Your task to perform on an android device: delete the emails in spam in the gmail app Image 0: 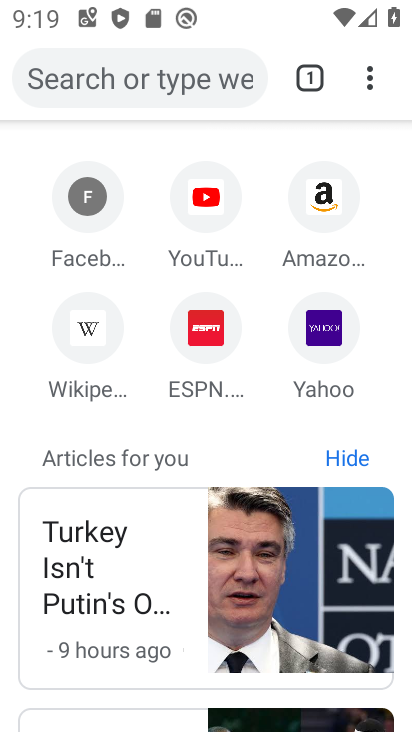
Step 0: press back button
Your task to perform on an android device: delete the emails in spam in the gmail app Image 1: 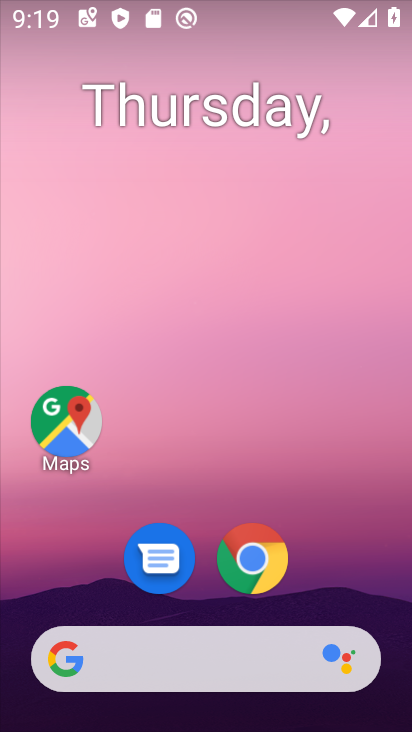
Step 1: drag from (331, 564) to (243, 225)
Your task to perform on an android device: delete the emails in spam in the gmail app Image 2: 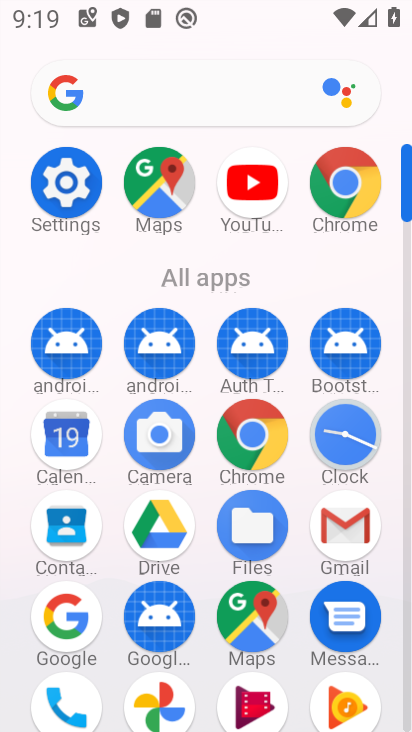
Step 2: click (340, 525)
Your task to perform on an android device: delete the emails in spam in the gmail app Image 3: 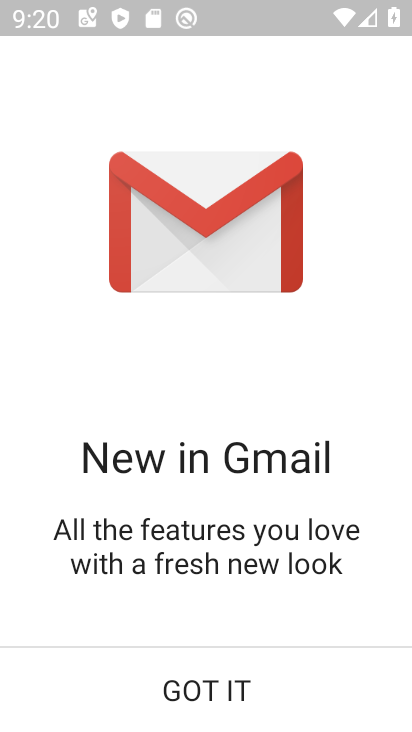
Step 3: click (201, 694)
Your task to perform on an android device: delete the emails in spam in the gmail app Image 4: 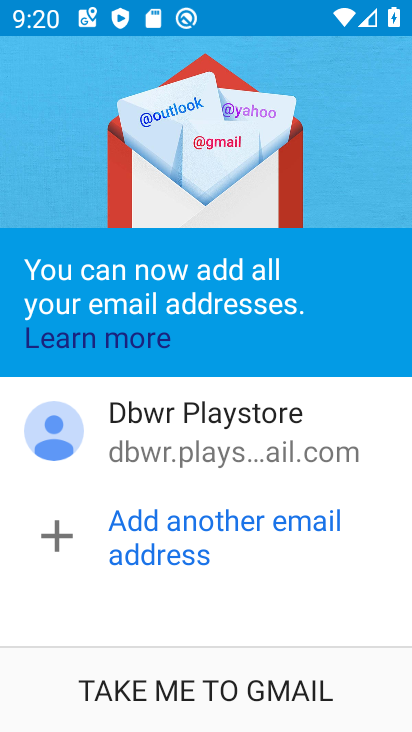
Step 4: click (192, 682)
Your task to perform on an android device: delete the emails in spam in the gmail app Image 5: 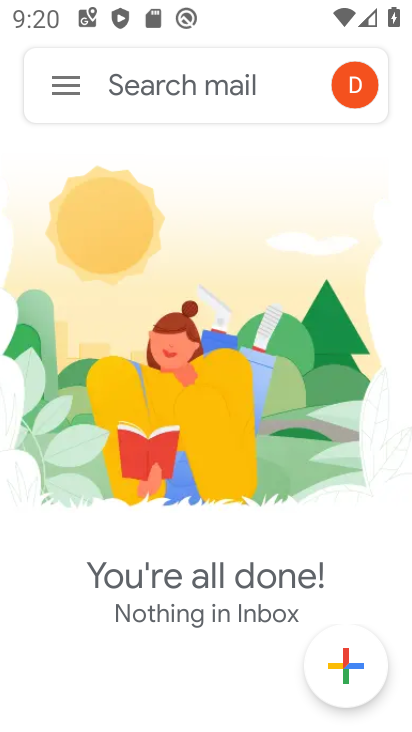
Step 5: click (70, 90)
Your task to perform on an android device: delete the emails in spam in the gmail app Image 6: 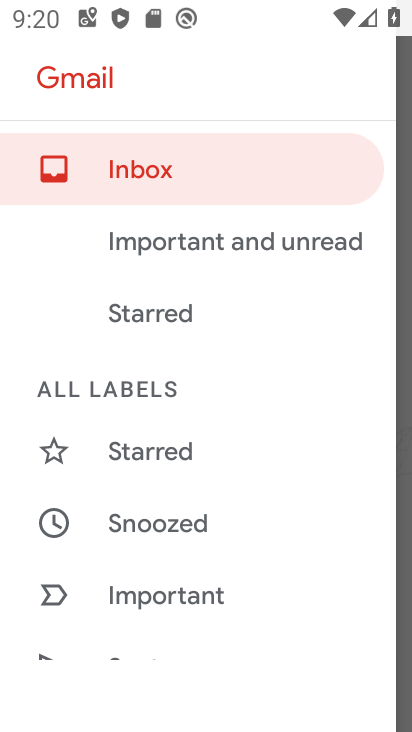
Step 6: drag from (162, 553) to (220, 444)
Your task to perform on an android device: delete the emails in spam in the gmail app Image 7: 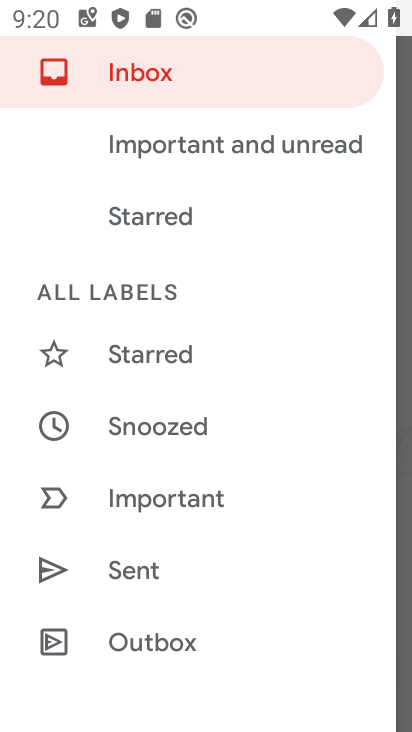
Step 7: drag from (176, 561) to (227, 446)
Your task to perform on an android device: delete the emails in spam in the gmail app Image 8: 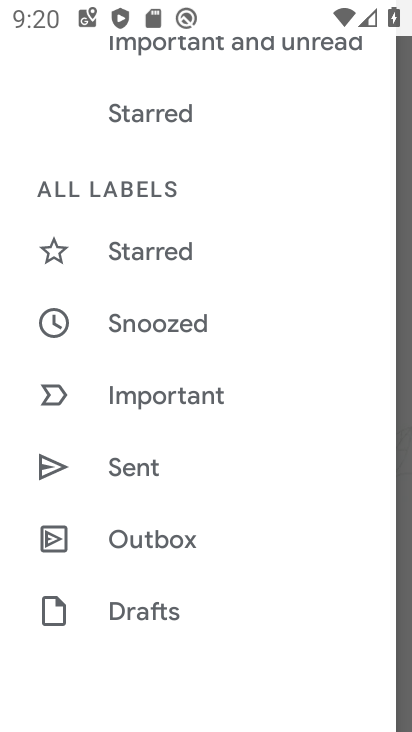
Step 8: drag from (148, 569) to (223, 462)
Your task to perform on an android device: delete the emails in spam in the gmail app Image 9: 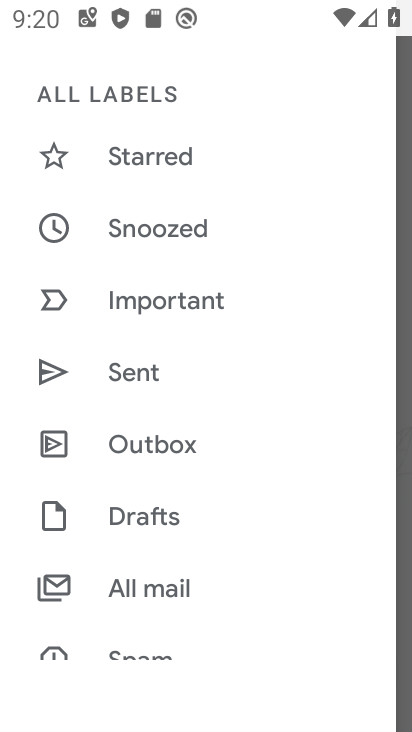
Step 9: drag from (160, 547) to (226, 443)
Your task to perform on an android device: delete the emails in spam in the gmail app Image 10: 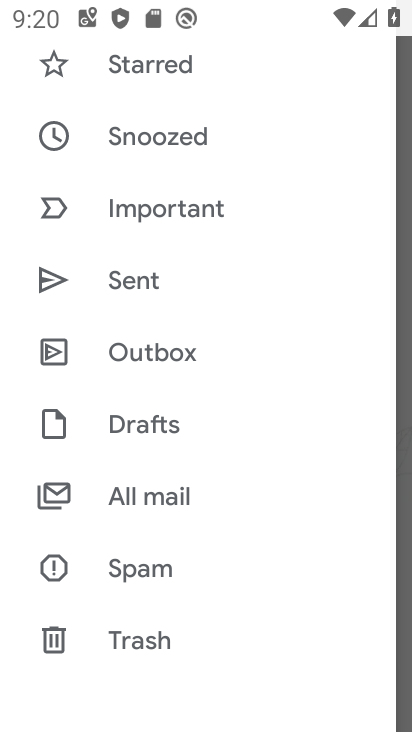
Step 10: click (146, 567)
Your task to perform on an android device: delete the emails in spam in the gmail app Image 11: 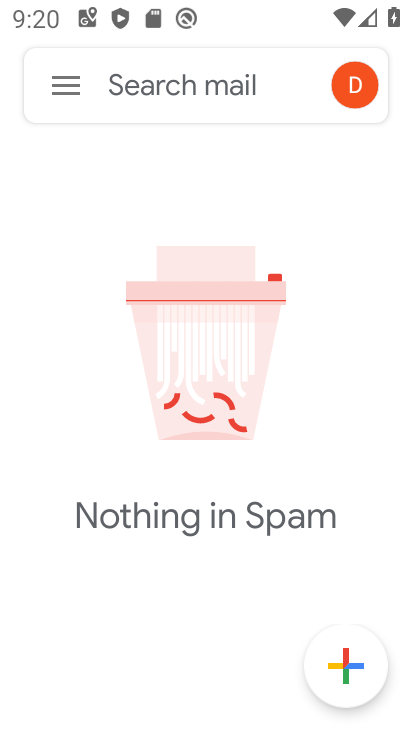
Step 11: task complete